Your task to perform on an android device: check the backup settings in the google photos Image 0: 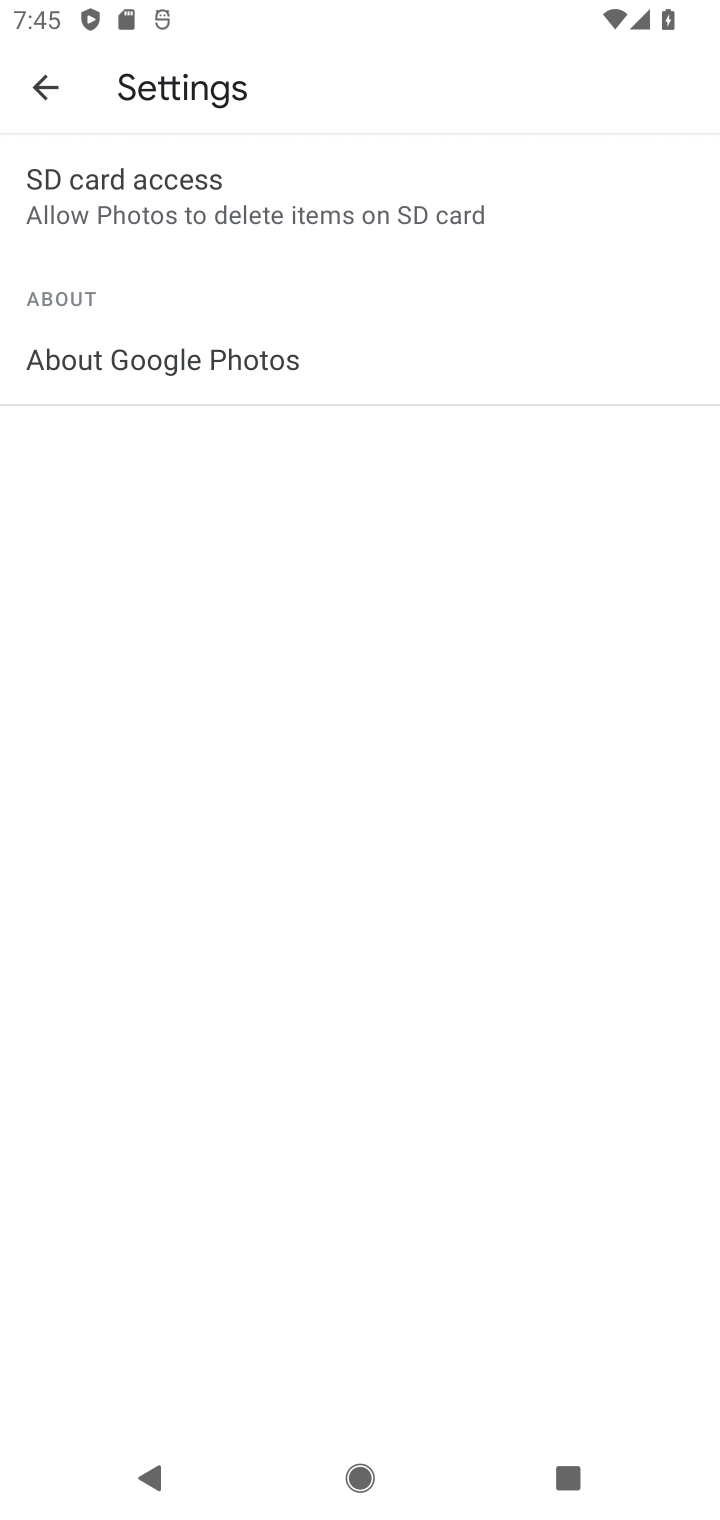
Step 0: press home button
Your task to perform on an android device: check the backup settings in the google photos Image 1: 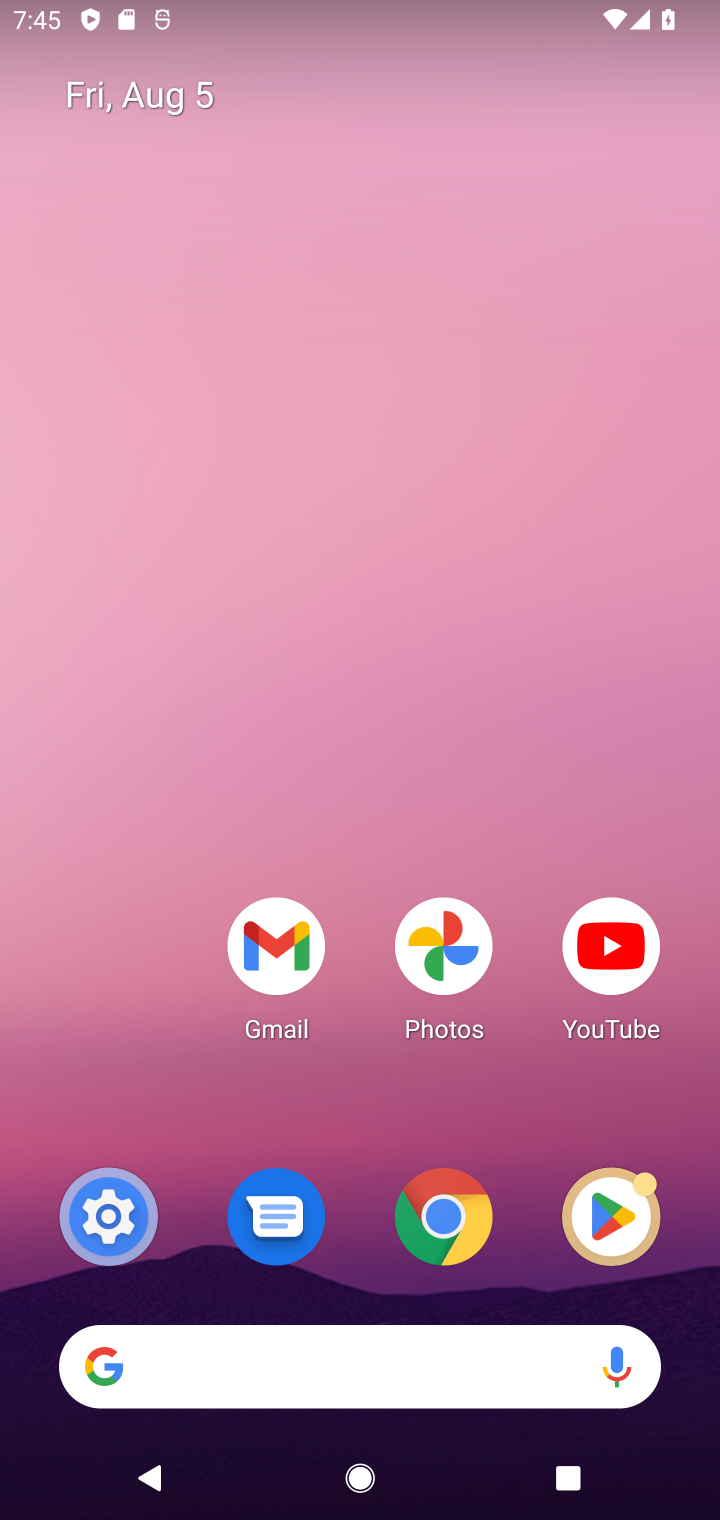
Step 1: click (436, 933)
Your task to perform on an android device: check the backup settings in the google photos Image 2: 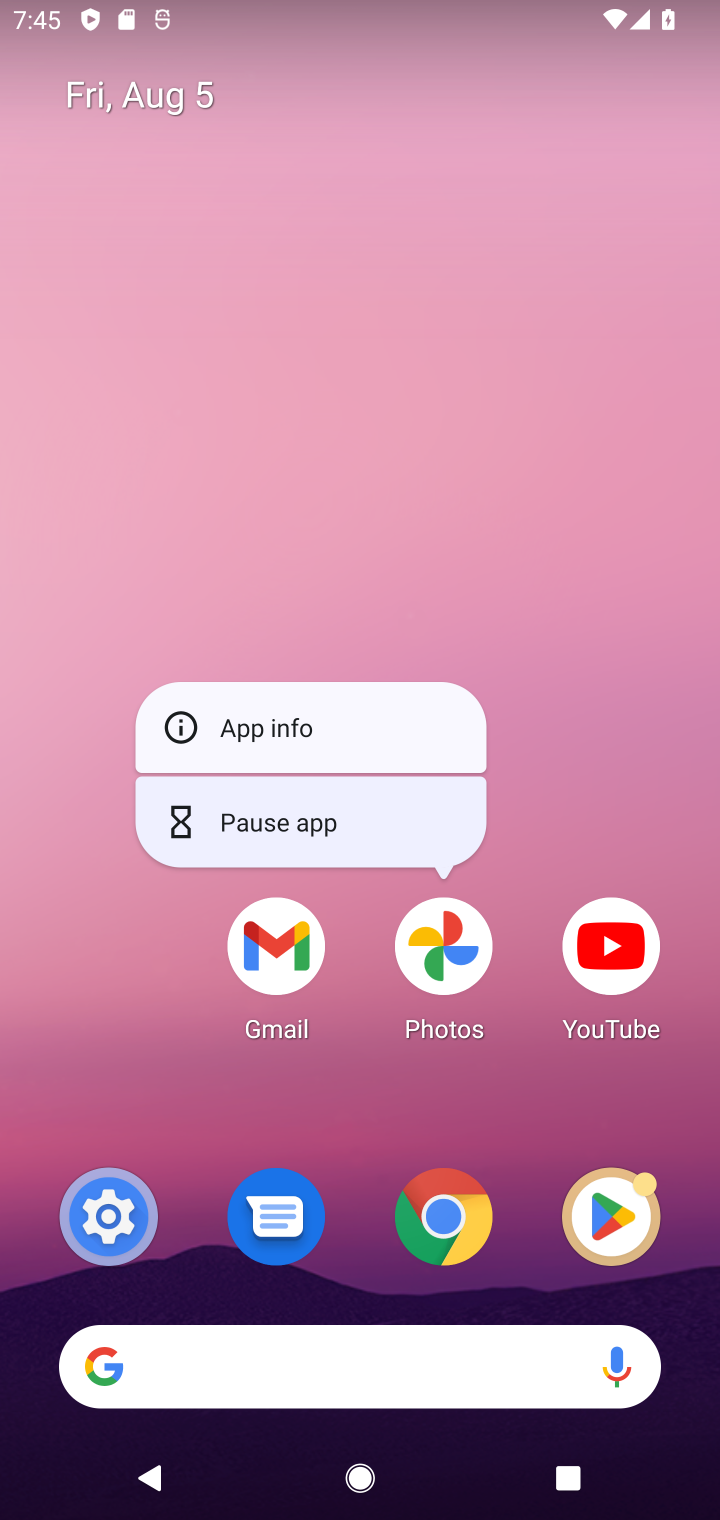
Step 2: click (440, 937)
Your task to perform on an android device: check the backup settings in the google photos Image 3: 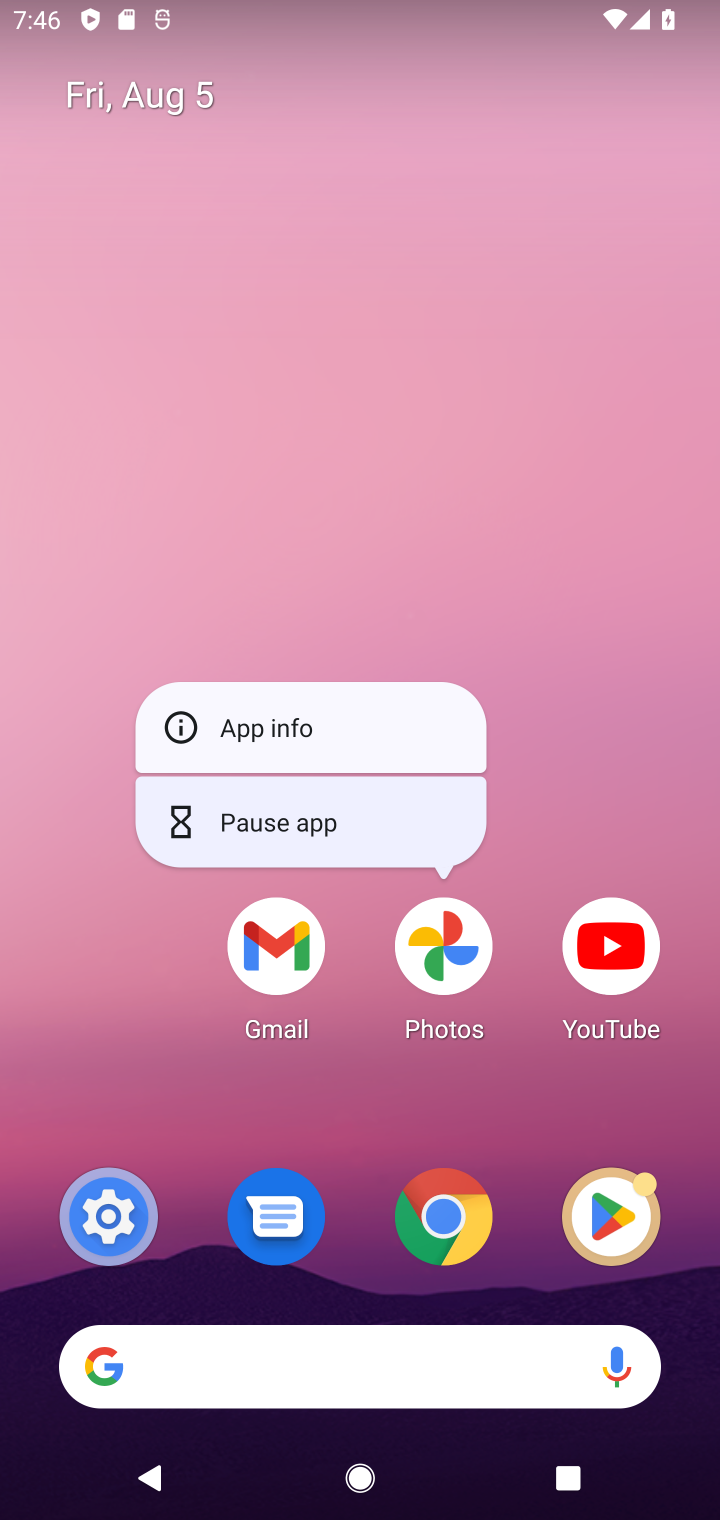
Step 3: click (446, 933)
Your task to perform on an android device: check the backup settings in the google photos Image 4: 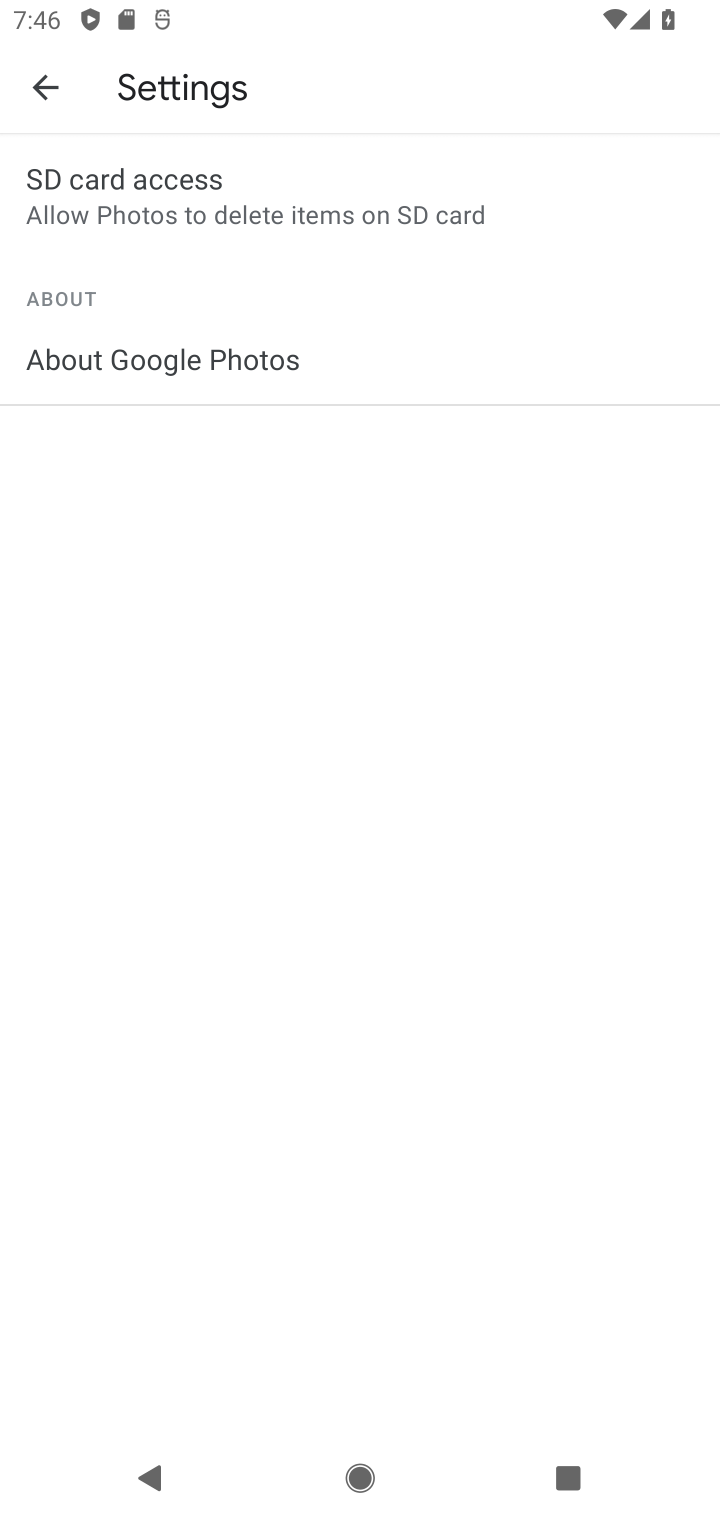
Step 4: click (44, 92)
Your task to perform on an android device: check the backup settings in the google photos Image 5: 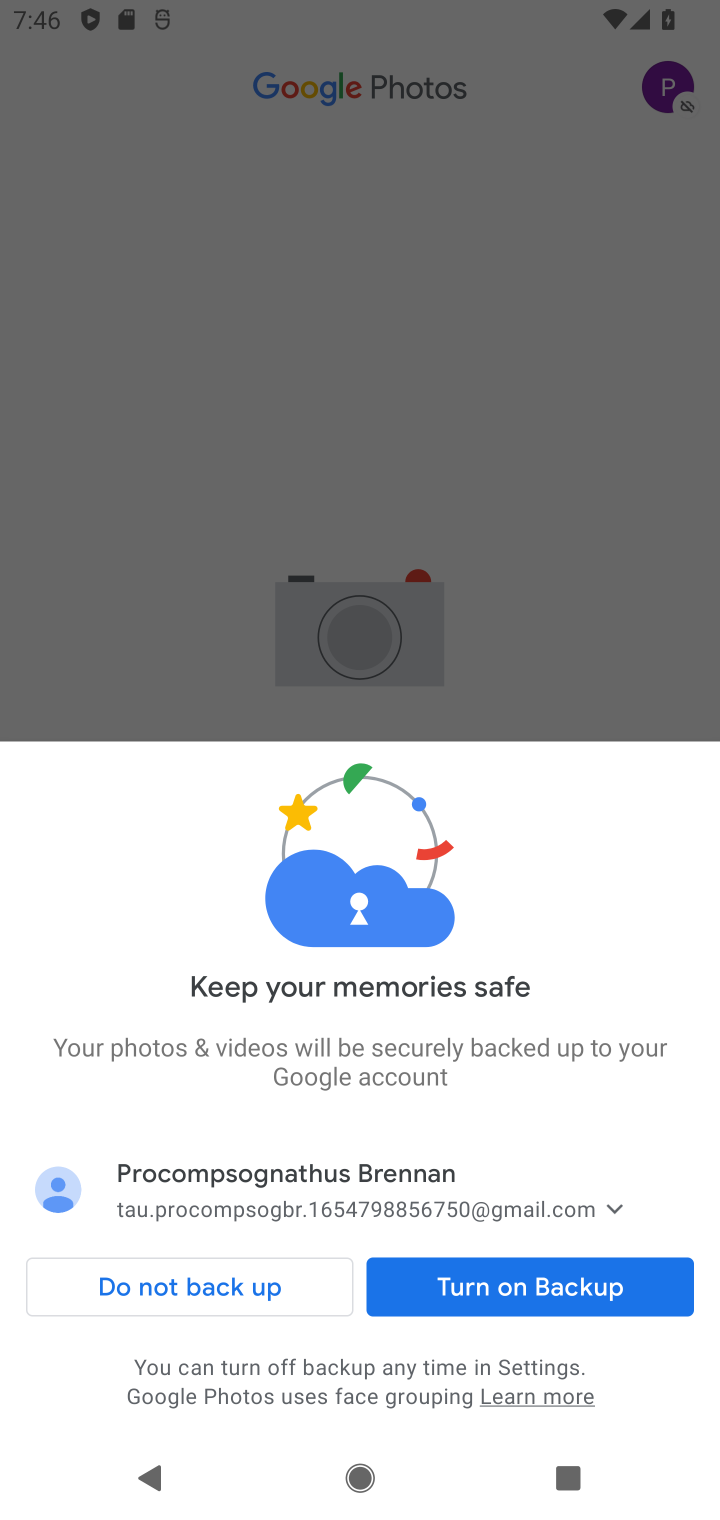
Step 5: click (564, 1286)
Your task to perform on an android device: check the backup settings in the google photos Image 6: 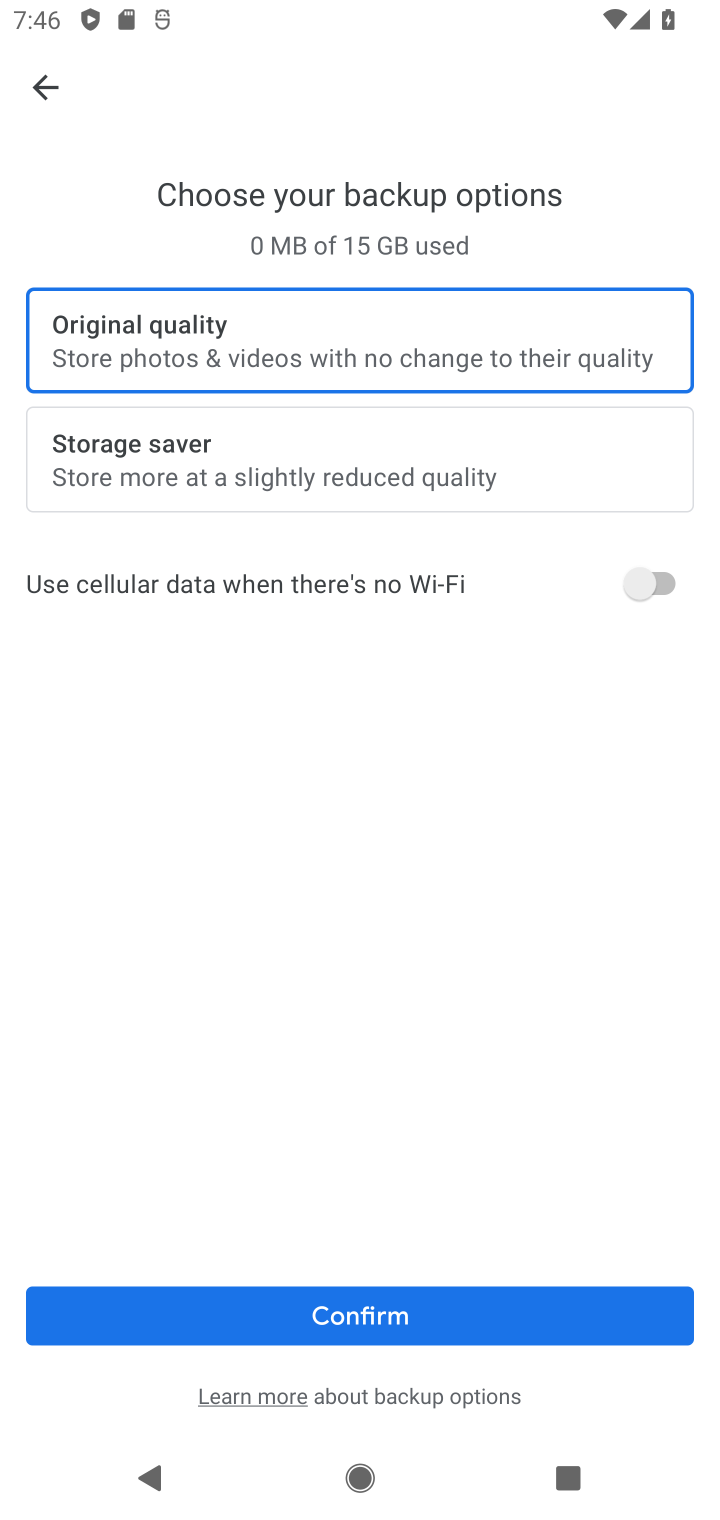
Step 6: click (248, 460)
Your task to perform on an android device: check the backup settings in the google photos Image 7: 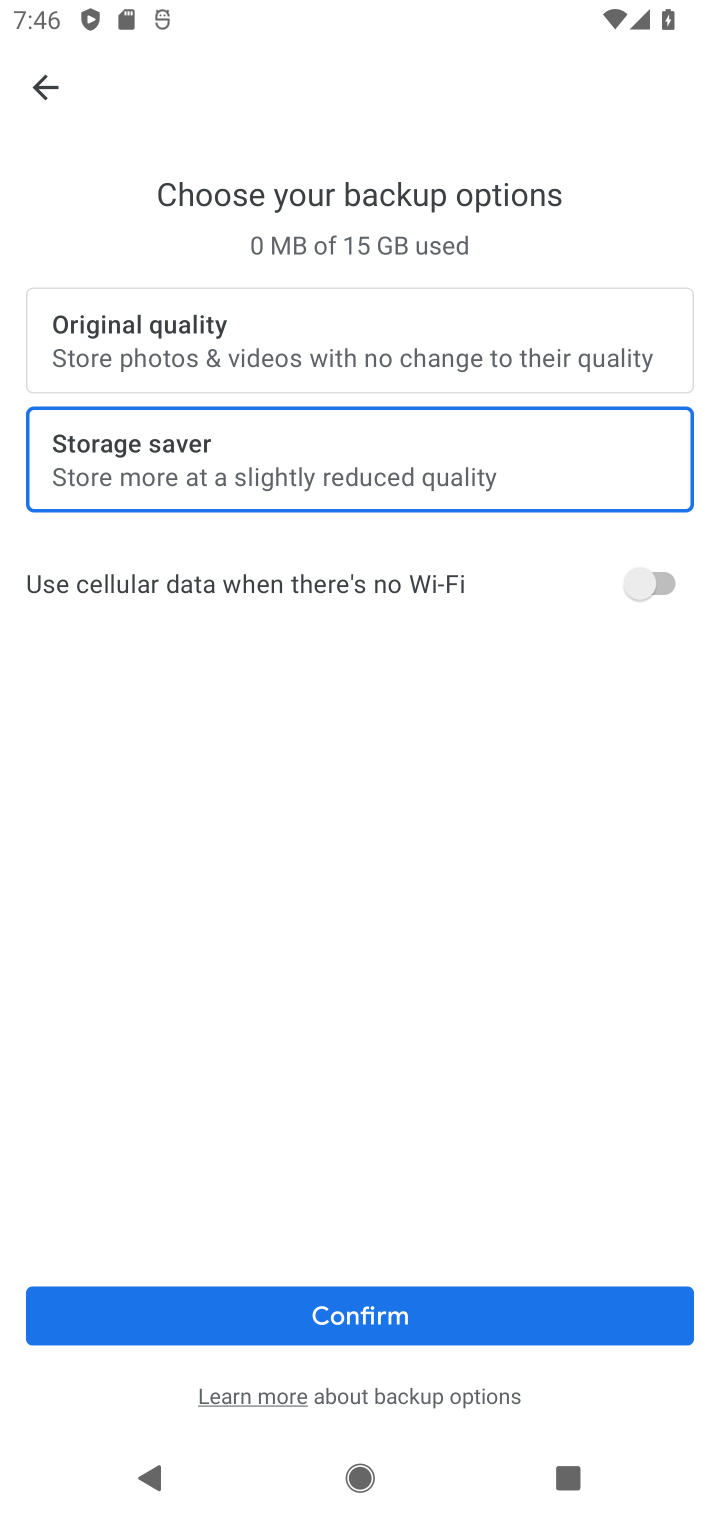
Step 7: click (390, 1322)
Your task to perform on an android device: check the backup settings in the google photos Image 8: 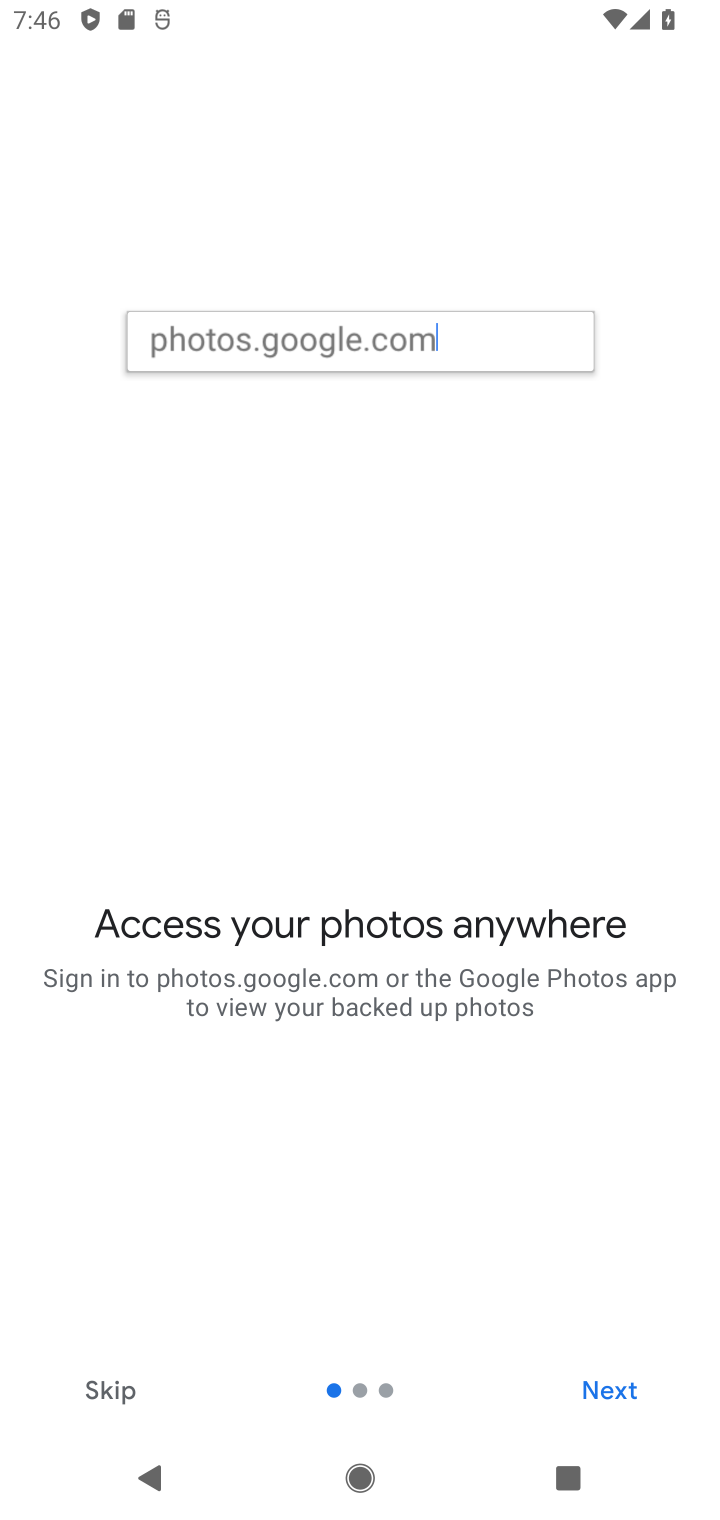
Step 8: click (105, 1390)
Your task to perform on an android device: check the backup settings in the google photos Image 9: 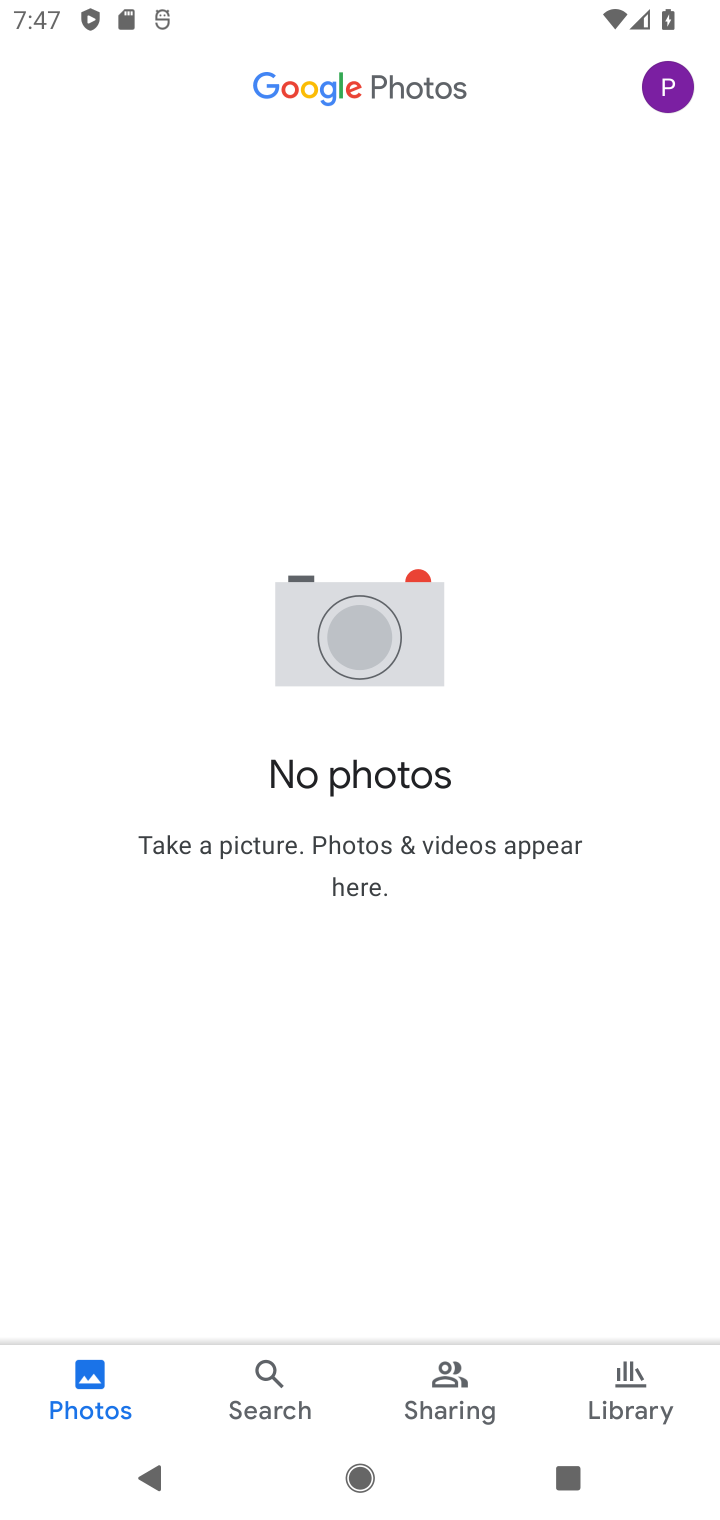
Step 9: click (679, 82)
Your task to perform on an android device: check the backup settings in the google photos Image 10: 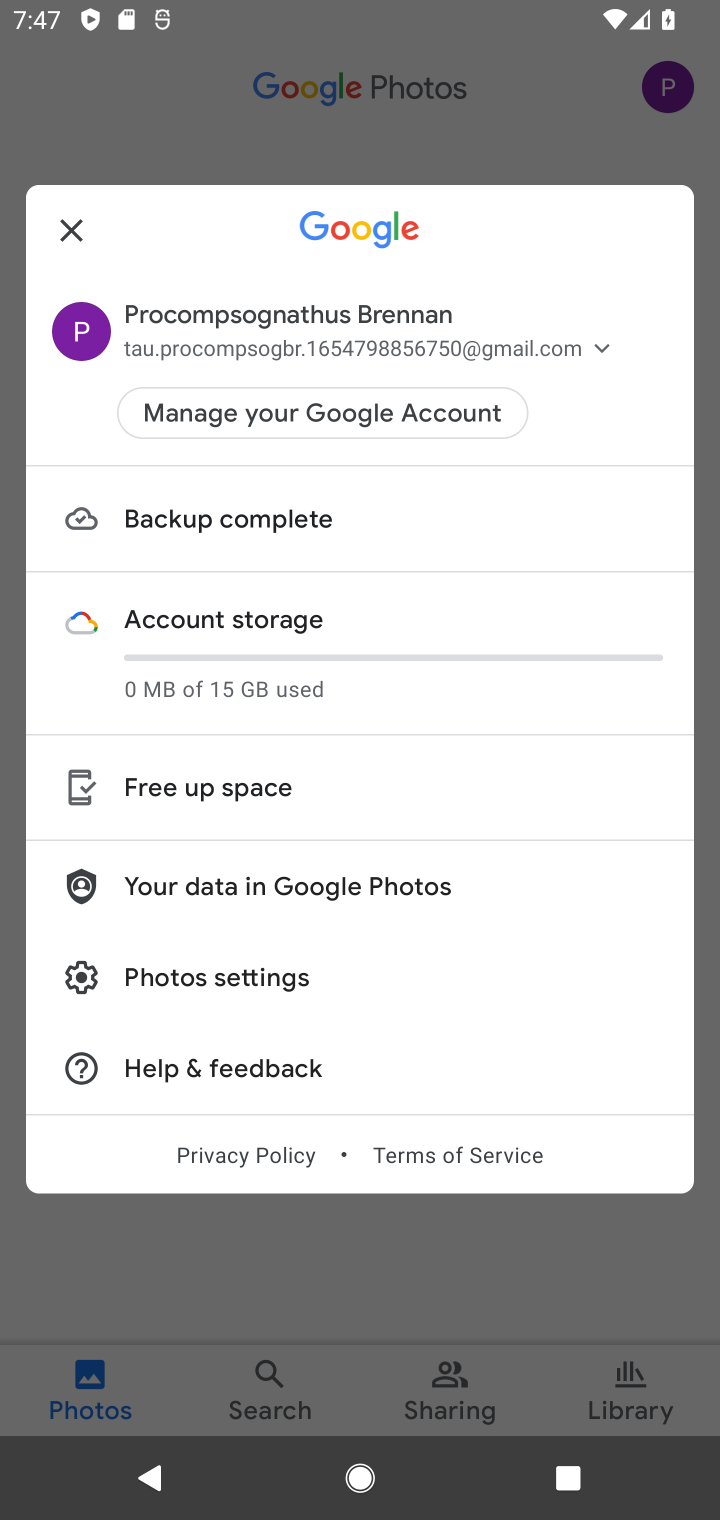
Step 10: click (226, 527)
Your task to perform on an android device: check the backup settings in the google photos Image 11: 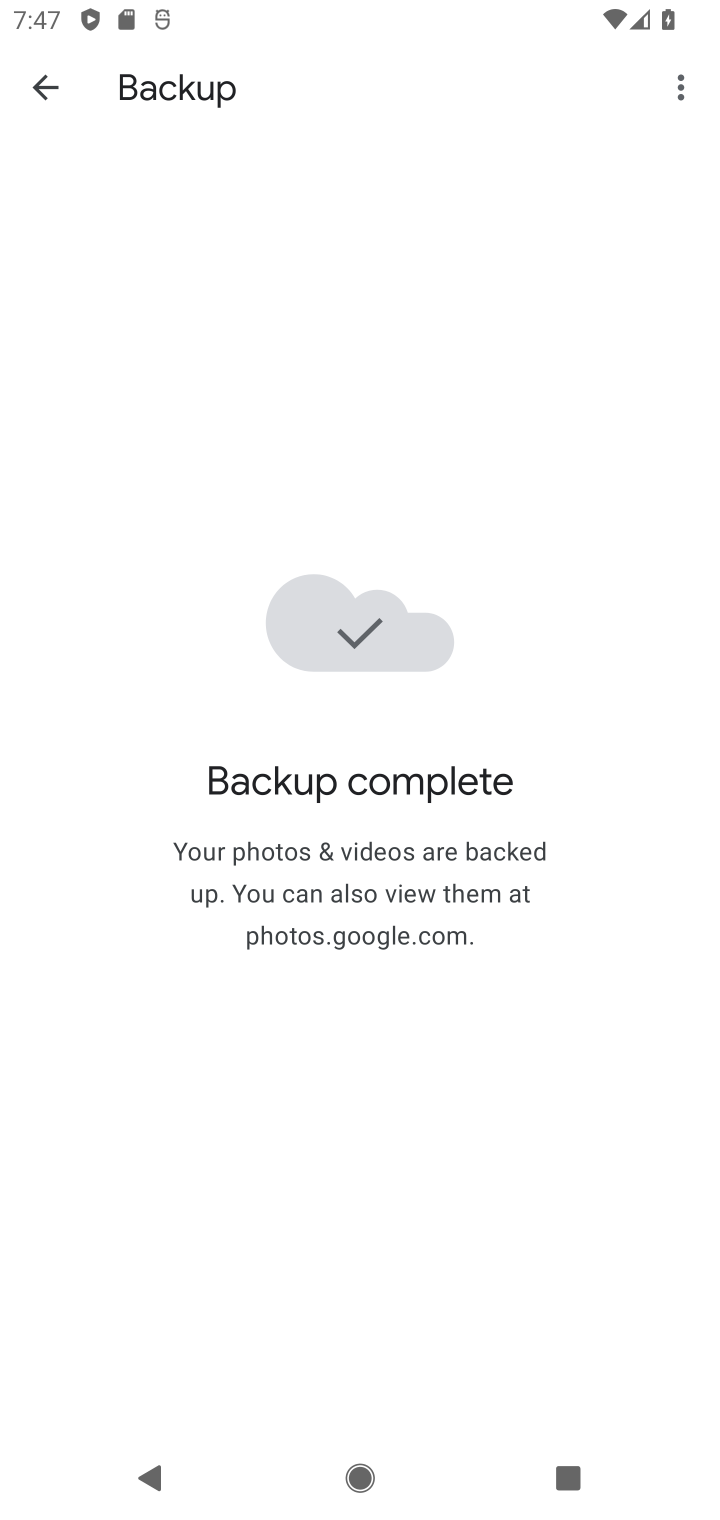
Step 11: click (677, 90)
Your task to perform on an android device: check the backup settings in the google photos Image 12: 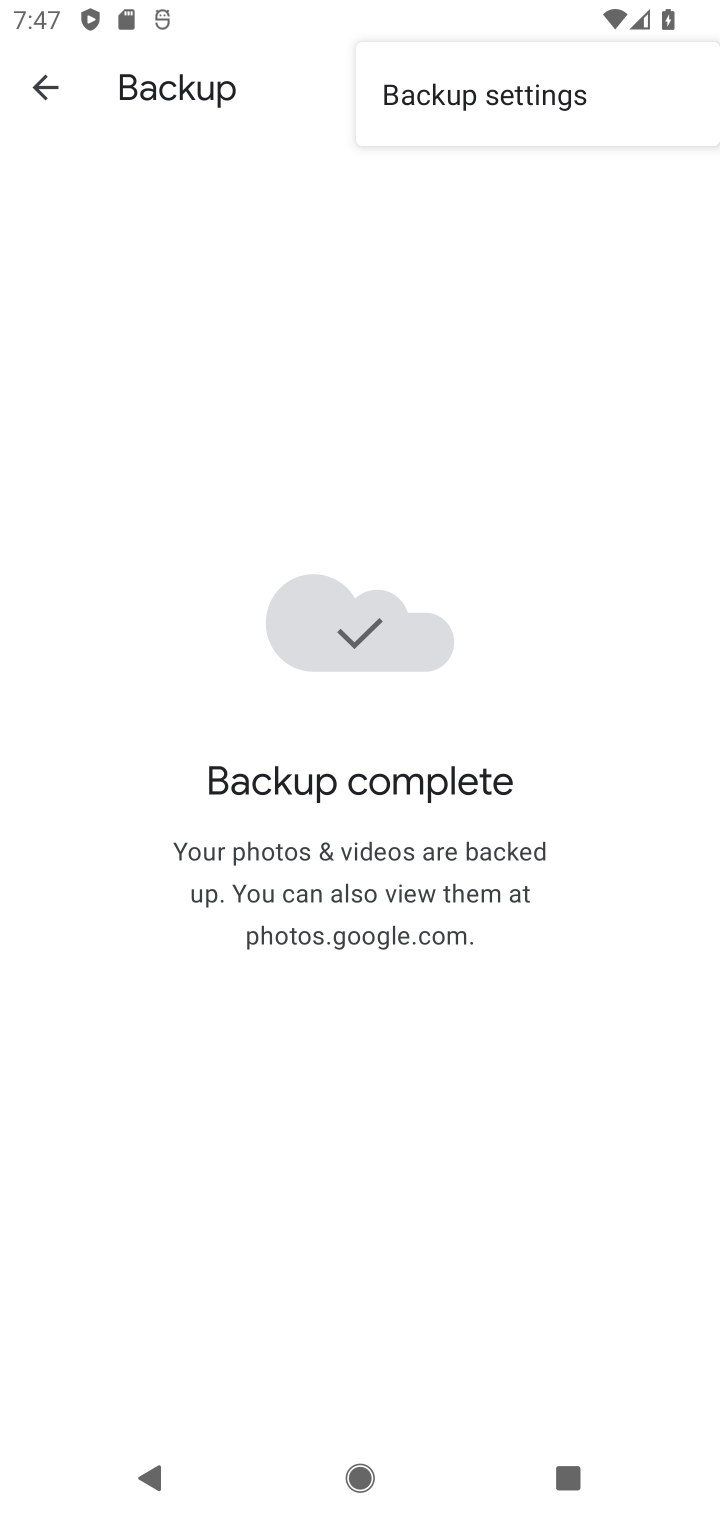
Step 12: click (580, 92)
Your task to perform on an android device: check the backup settings in the google photos Image 13: 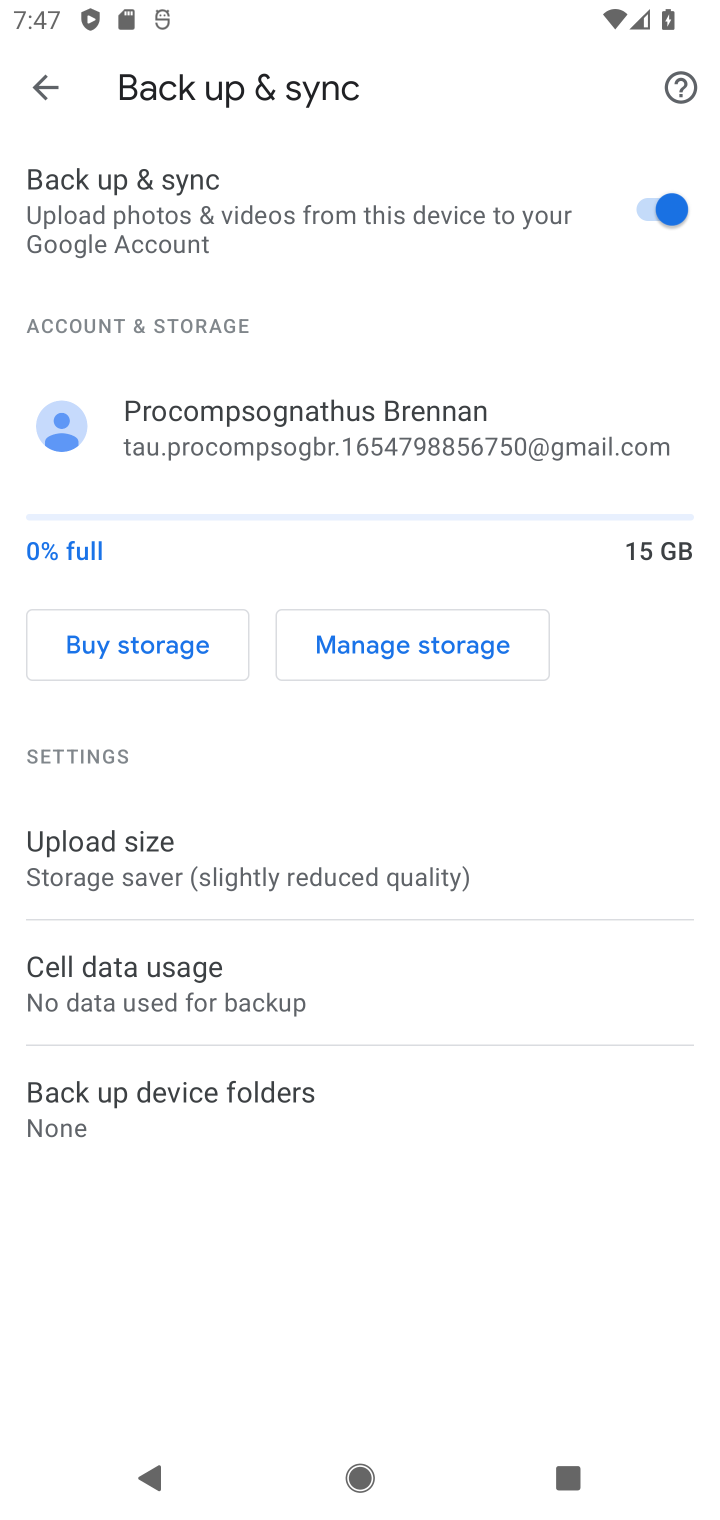
Step 13: task complete